Your task to perform on an android device: toggle airplane mode Image 0: 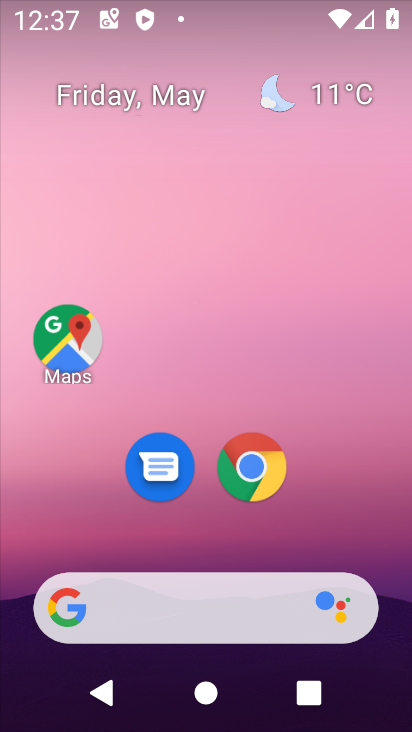
Step 0: drag from (382, 539) to (347, 0)
Your task to perform on an android device: toggle airplane mode Image 1: 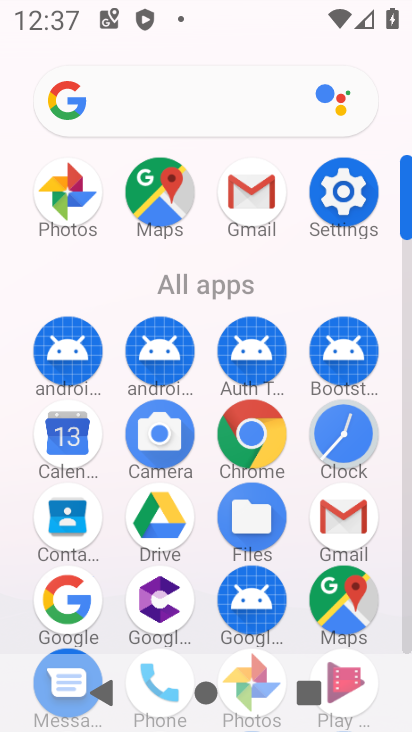
Step 1: click (343, 193)
Your task to perform on an android device: toggle airplane mode Image 2: 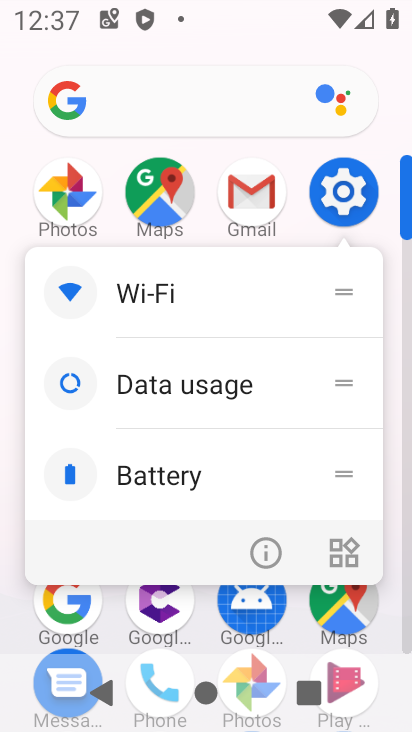
Step 2: click (344, 201)
Your task to perform on an android device: toggle airplane mode Image 3: 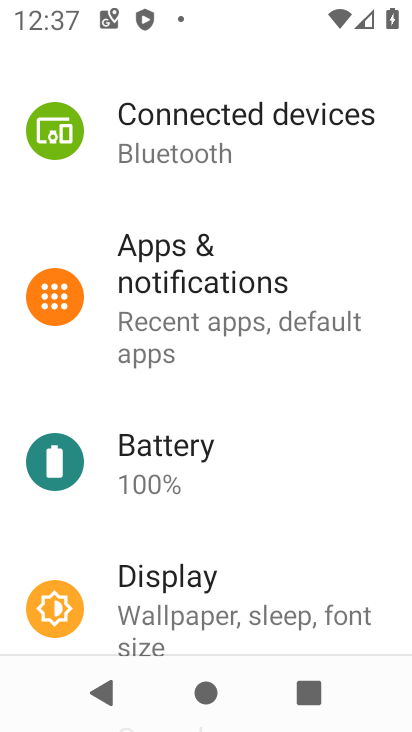
Step 3: drag from (332, 190) to (324, 523)
Your task to perform on an android device: toggle airplane mode Image 4: 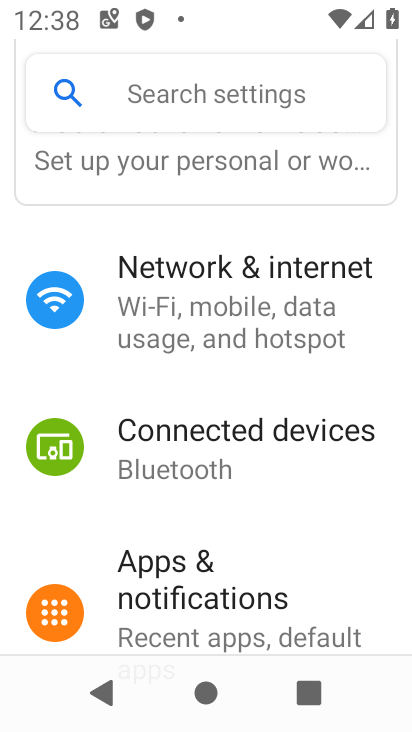
Step 4: click (270, 356)
Your task to perform on an android device: toggle airplane mode Image 5: 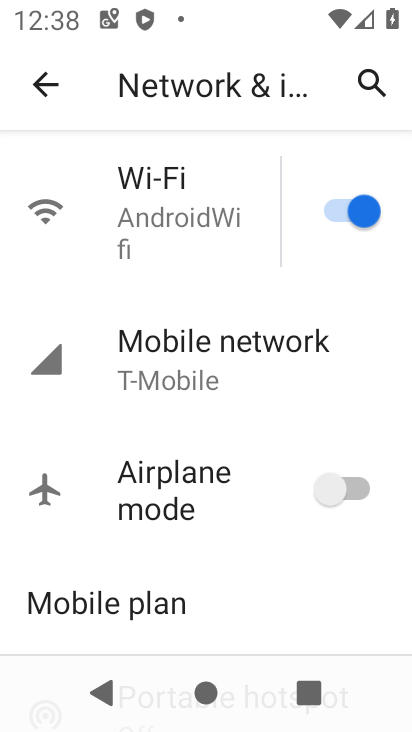
Step 5: click (352, 480)
Your task to perform on an android device: toggle airplane mode Image 6: 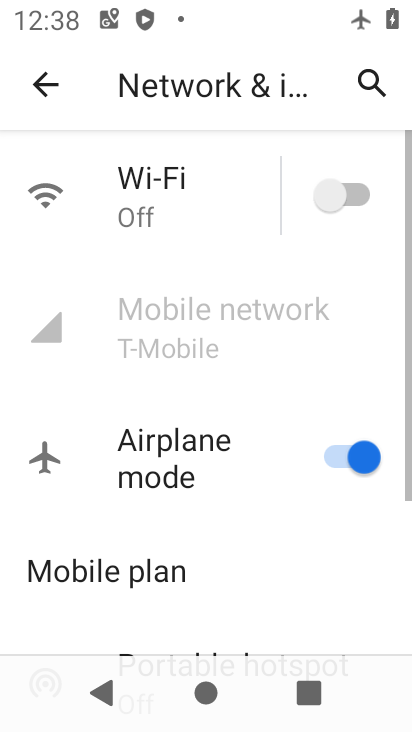
Step 6: task complete